Your task to perform on an android device: change the upload size in google photos Image 0: 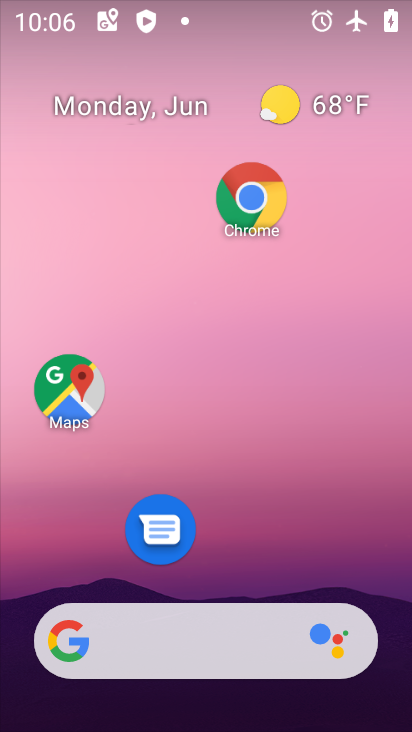
Step 0: drag from (231, 520) to (217, 142)
Your task to perform on an android device: change the upload size in google photos Image 1: 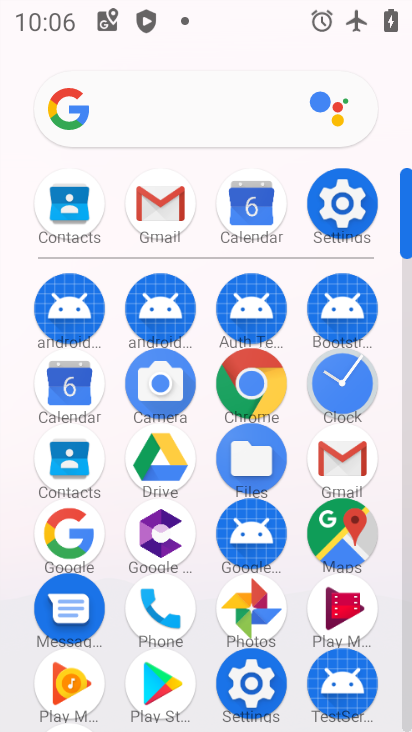
Step 1: click (261, 592)
Your task to perform on an android device: change the upload size in google photos Image 2: 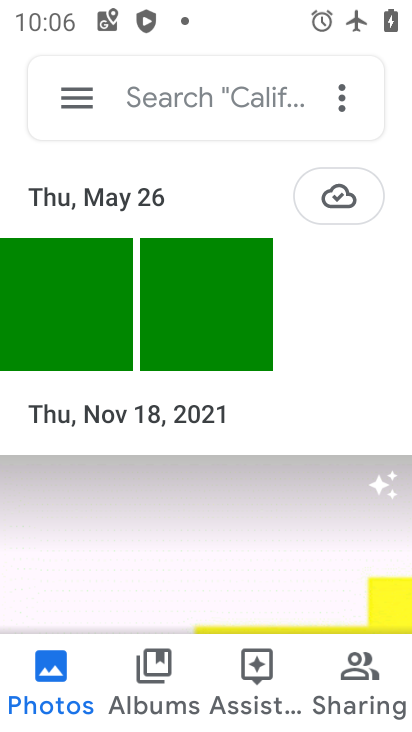
Step 2: click (82, 98)
Your task to perform on an android device: change the upload size in google photos Image 3: 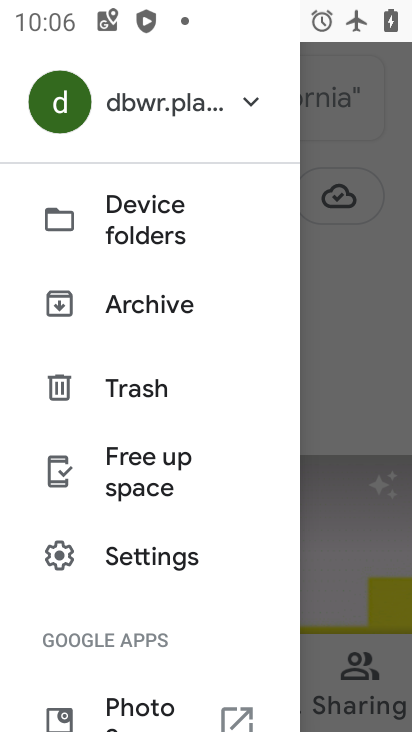
Step 3: drag from (187, 644) to (185, 388)
Your task to perform on an android device: change the upload size in google photos Image 4: 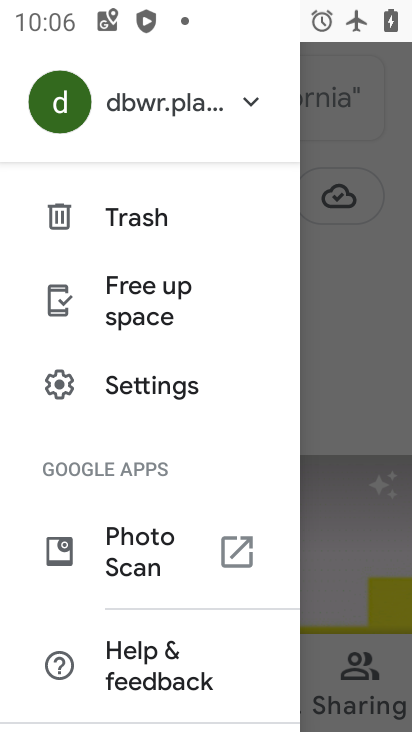
Step 4: click (172, 380)
Your task to perform on an android device: change the upload size in google photos Image 5: 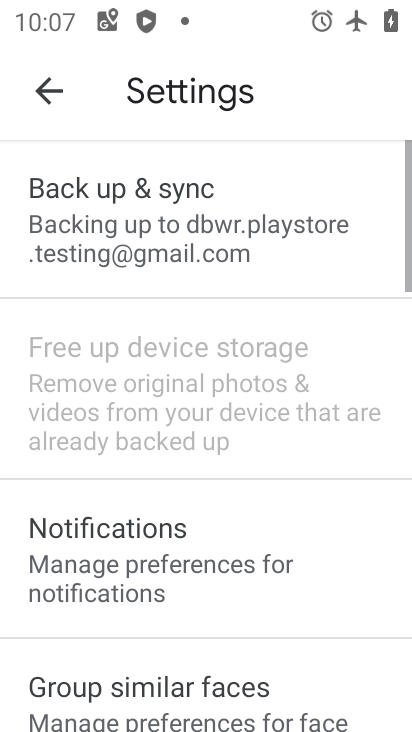
Step 5: drag from (180, 565) to (187, 237)
Your task to perform on an android device: change the upload size in google photos Image 6: 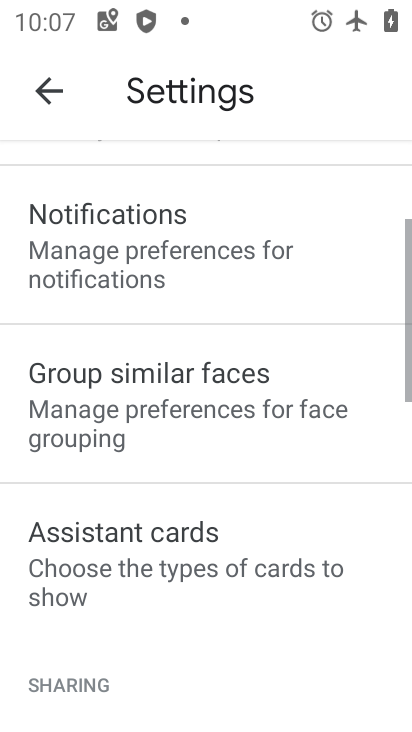
Step 6: drag from (227, 566) to (241, 290)
Your task to perform on an android device: change the upload size in google photos Image 7: 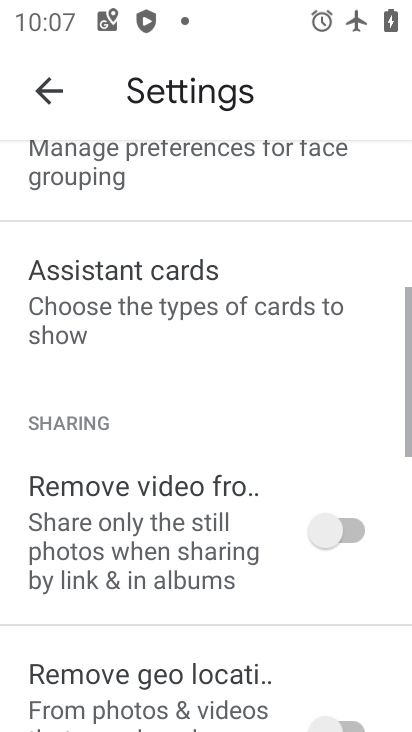
Step 7: drag from (232, 577) to (245, 309)
Your task to perform on an android device: change the upload size in google photos Image 8: 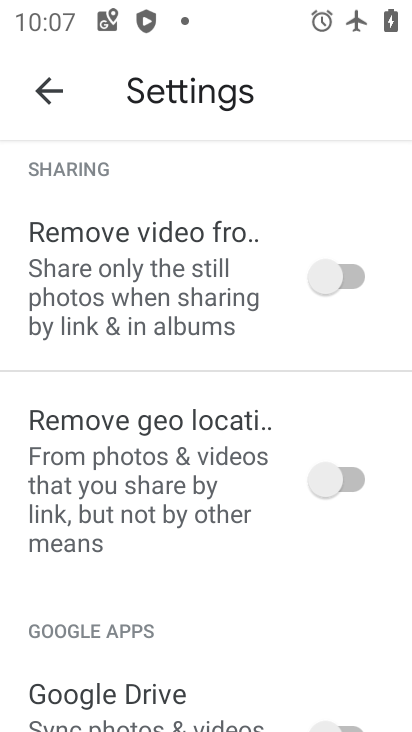
Step 8: drag from (214, 617) to (233, 330)
Your task to perform on an android device: change the upload size in google photos Image 9: 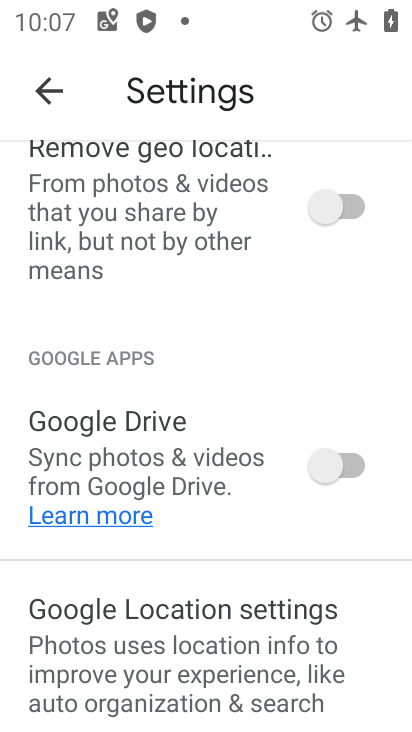
Step 9: drag from (228, 602) to (225, 281)
Your task to perform on an android device: change the upload size in google photos Image 10: 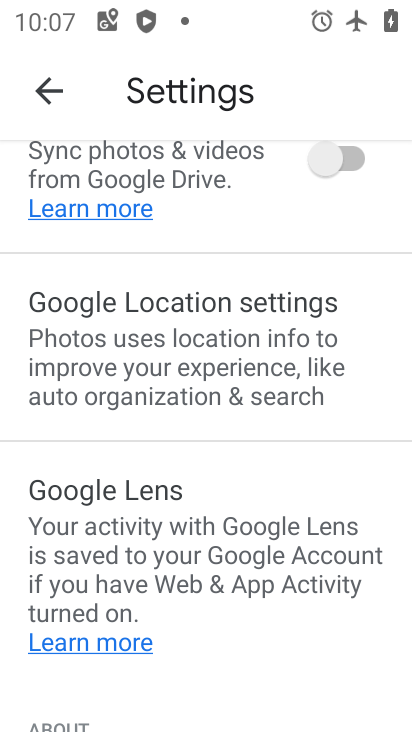
Step 10: drag from (189, 583) to (175, 231)
Your task to perform on an android device: change the upload size in google photos Image 11: 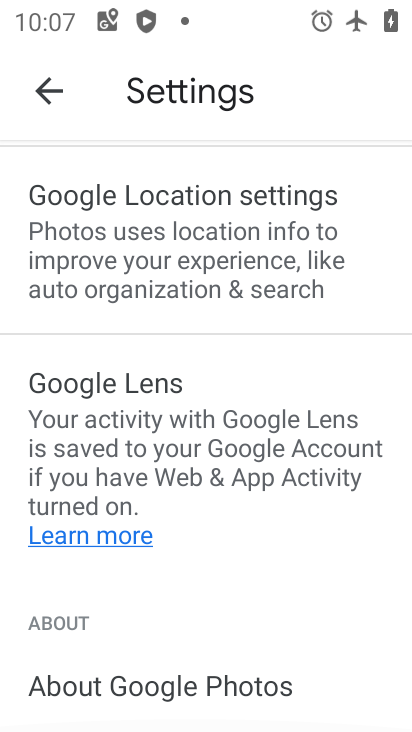
Step 11: drag from (175, 233) to (185, 512)
Your task to perform on an android device: change the upload size in google photos Image 12: 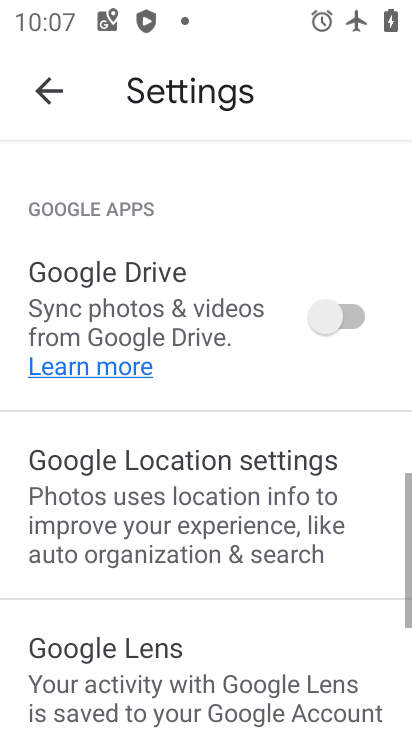
Step 12: drag from (73, 165) to (125, 528)
Your task to perform on an android device: change the upload size in google photos Image 13: 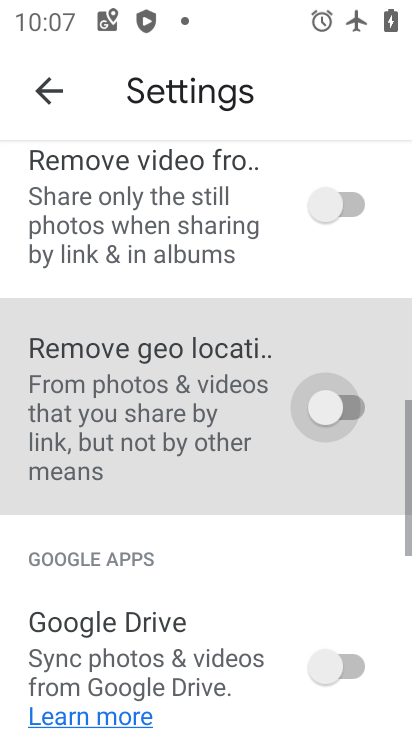
Step 13: drag from (160, 194) to (176, 525)
Your task to perform on an android device: change the upload size in google photos Image 14: 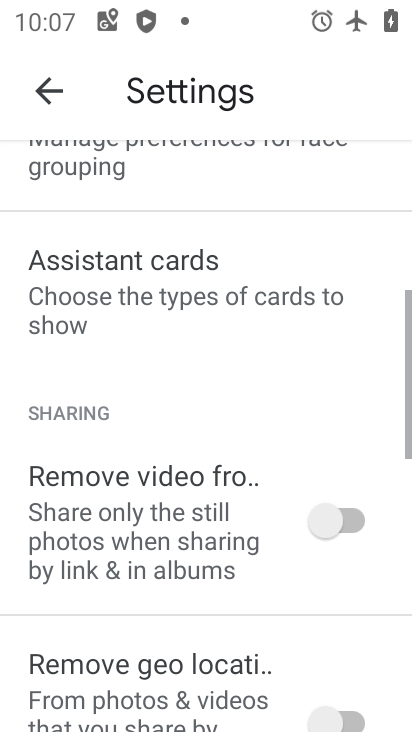
Step 14: drag from (158, 287) to (175, 607)
Your task to perform on an android device: change the upload size in google photos Image 15: 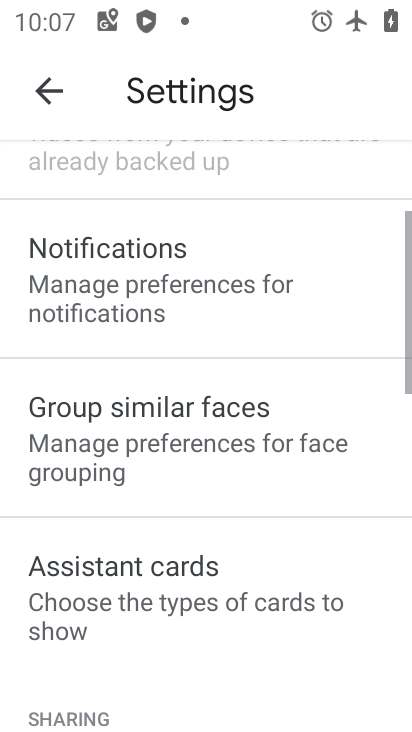
Step 15: drag from (154, 202) to (151, 589)
Your task to perform on an android device: change the upload size in google photos Image 16: 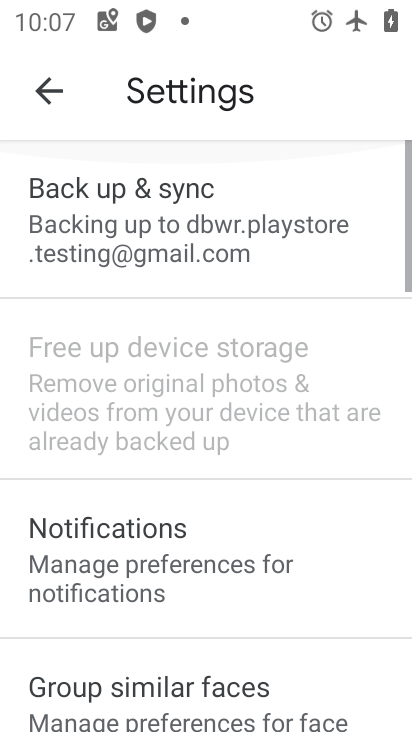
Step 16: drag from (119, 279) to (126, 585)
Your task to perform on an android device: change the upload size in google photos Image 17: 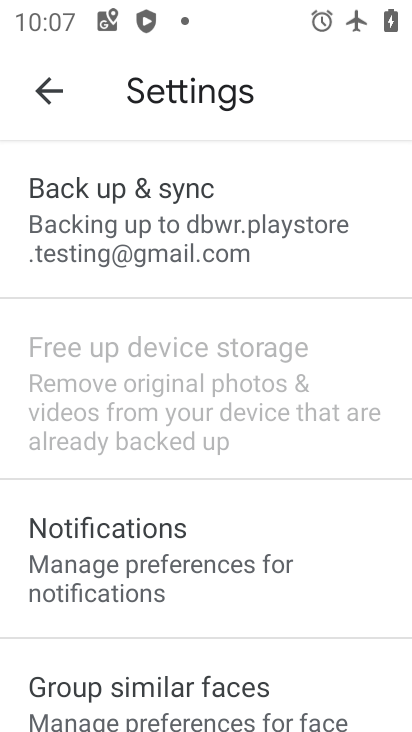
Step 17: click (161, 242)
Your task to perform on an android device: change the upload size in google photos Image 18: 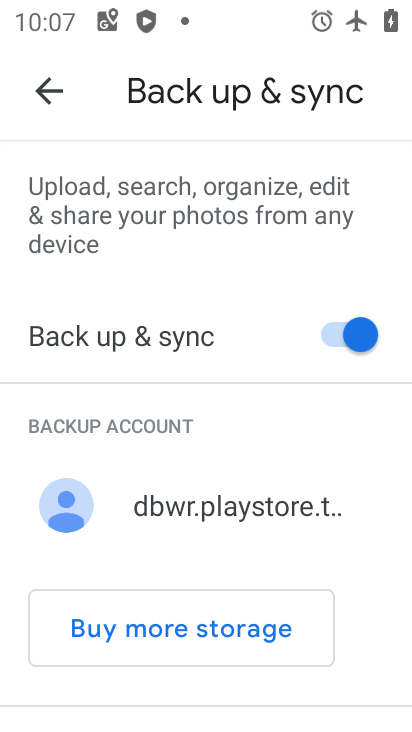
Step 18: drag from (183, 562) to (183, 326)
Your task to perform on an android device: change the upload size in google photos Image 19: 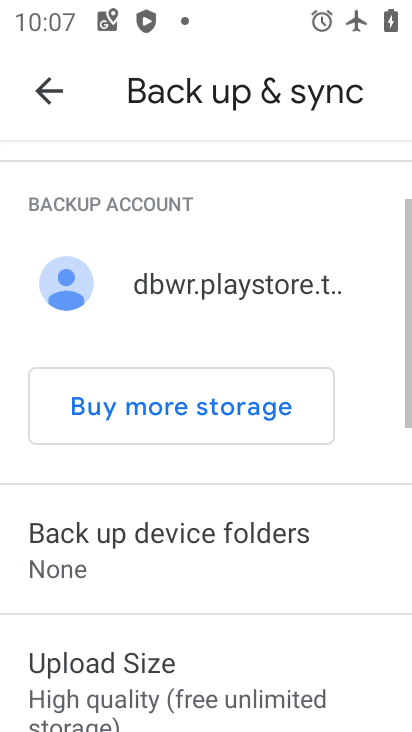
Step 19: drag from (201, 608) to (222, 382)
Your task to perform on an android device: change the upload size in google photos Image 20: 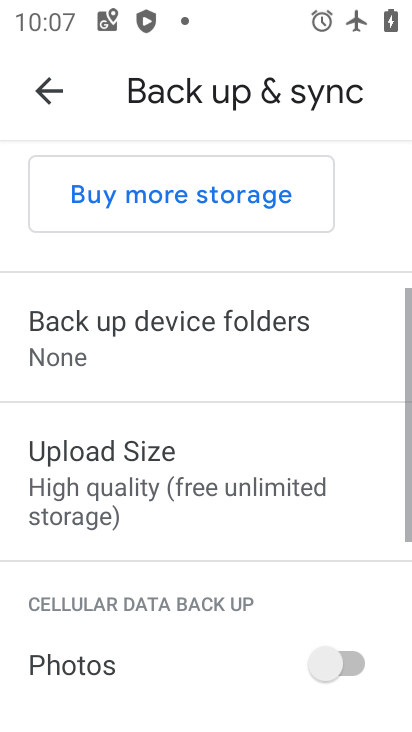
Step 20: click (189, 472)
Your task to perform on an android device: change the upload size in google photos Image 21: 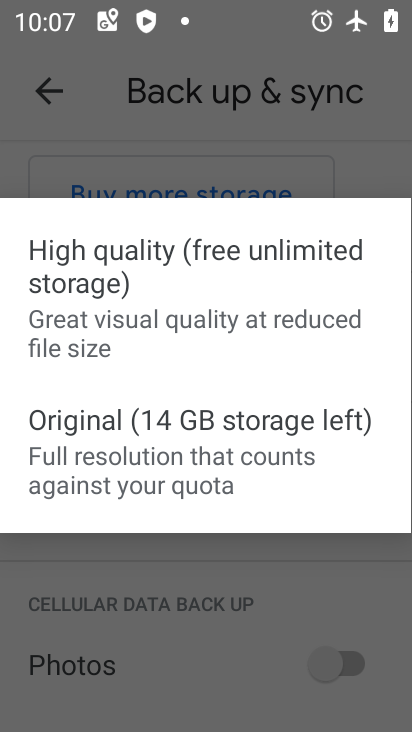
Step 21: click (168, 421)
Your task to perform on an android device: change the upload size in google photos Image 22: 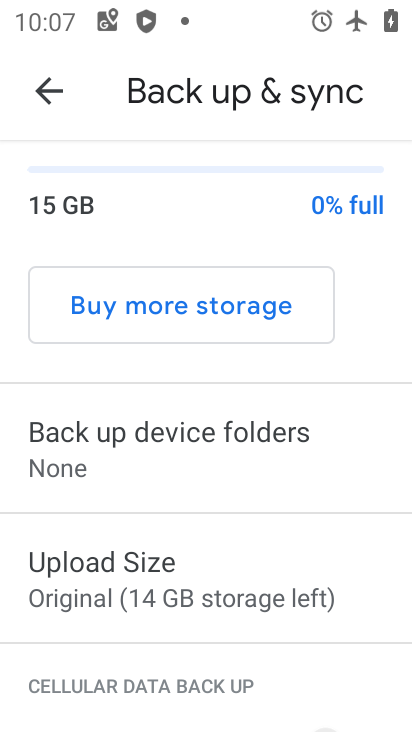
Step 22: task complete